Your task to perform on an android device: turn on showing notifications on the lock screen Image 0: 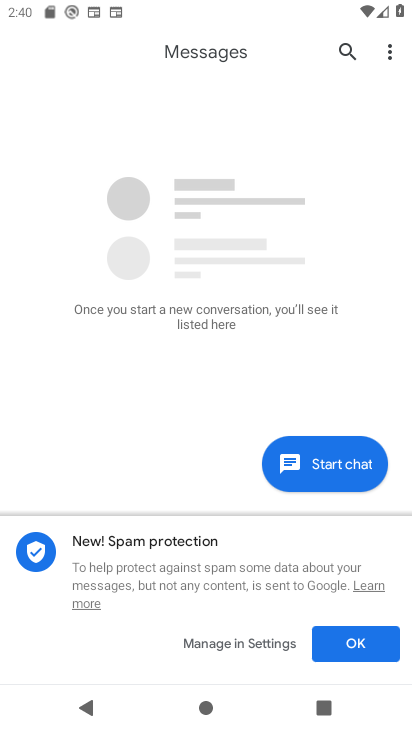
Step 0: press home button
Your task to perform on an android device: turn on showing notifications on the lock screen Image 1: 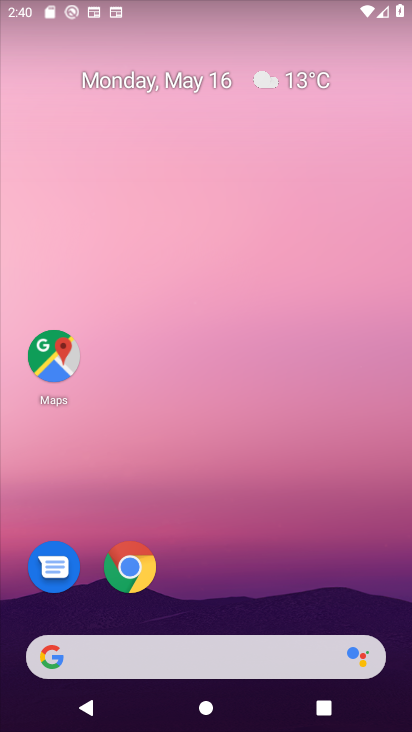
Step 1: drag from (326, 535) to (262, 39)
Your task to perform on an android device: turn on showing notifications on the lock screen Image 2: 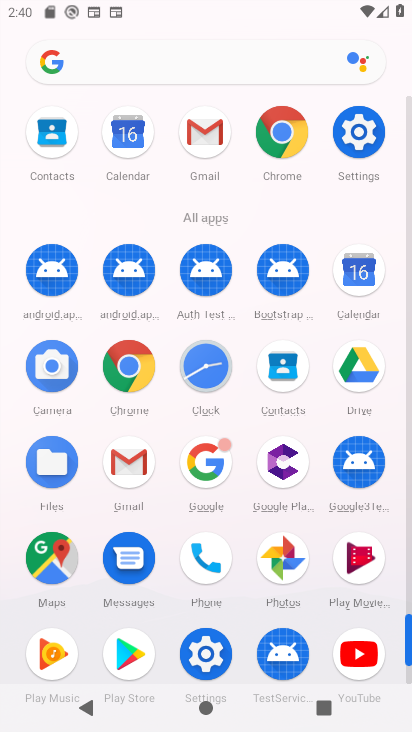
Step 2: click (367, 136)
Your task to perform on an android device: turn on showing notifications on the lock screen Image 3: 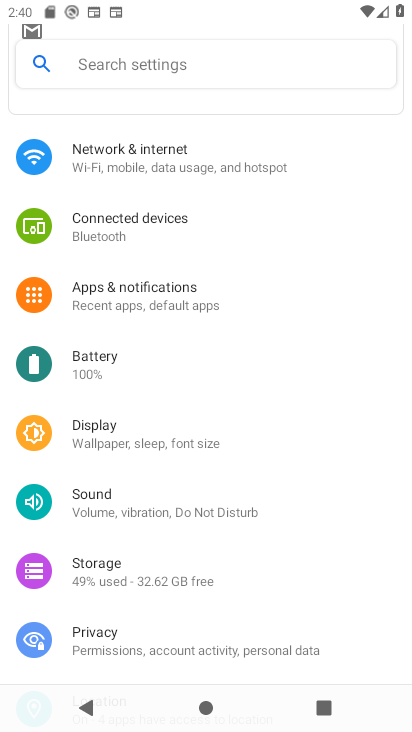
Step 3: click (154, 291)
Your task to perform on an android device: turn on showing notifications on the lock screen Image 4: 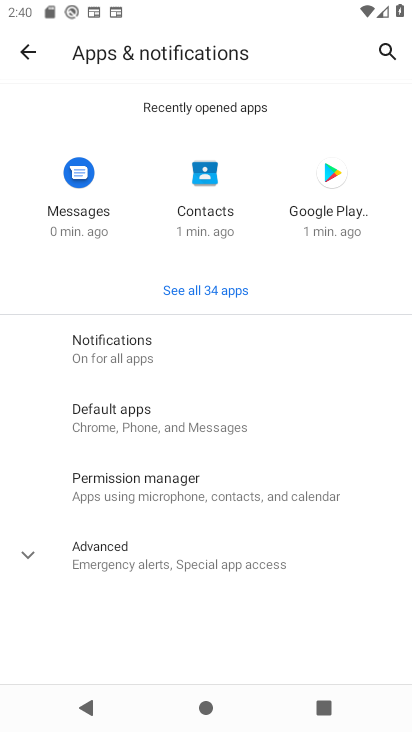
Step 4: click (149, 362)
Your task to perform on an android device: turn on showing notifications on the lock screen Image 5: 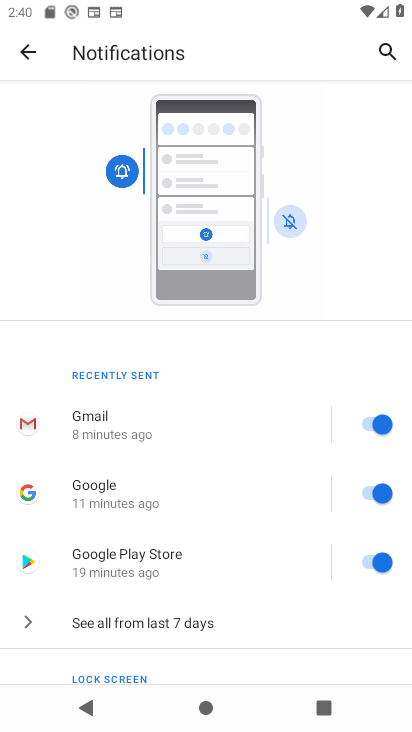
Step 5: drag from (269, 614) to (262, 324)
Your task to perform on an android device: turn on showing notifications on the lock screen Image 6: 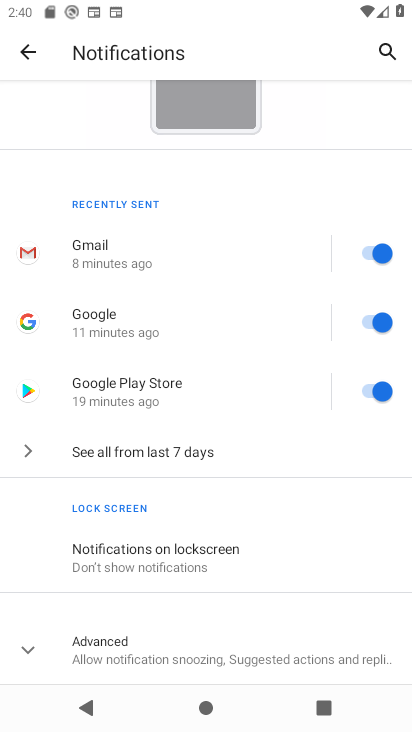
Step 6: click (229, 547)
Your task to perform on an android device: turn on showing notifications on the lock screen Image 7: 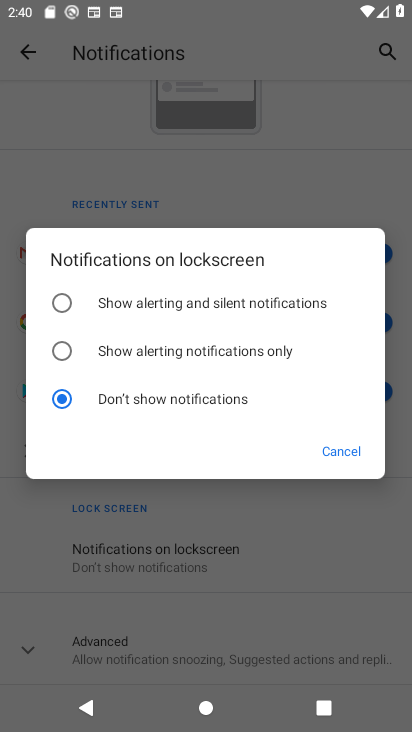
Step 7: click (192, 306)
Your task to perform on an android device: turn on showing notifications on the lock screen Image 8: 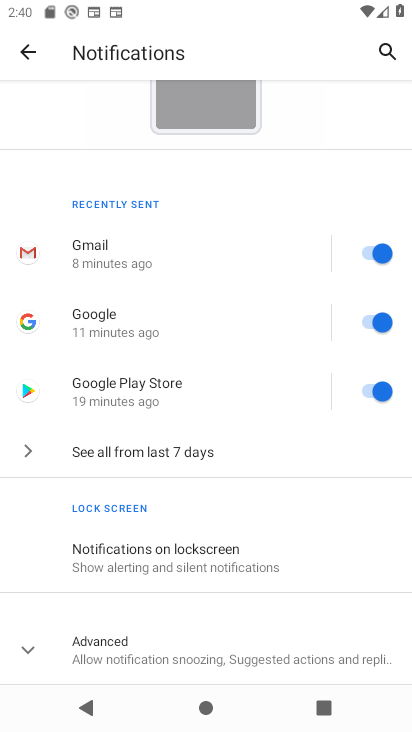
Step 8: task complete